Your task to perform on an android device: Go to network settings Image 0: 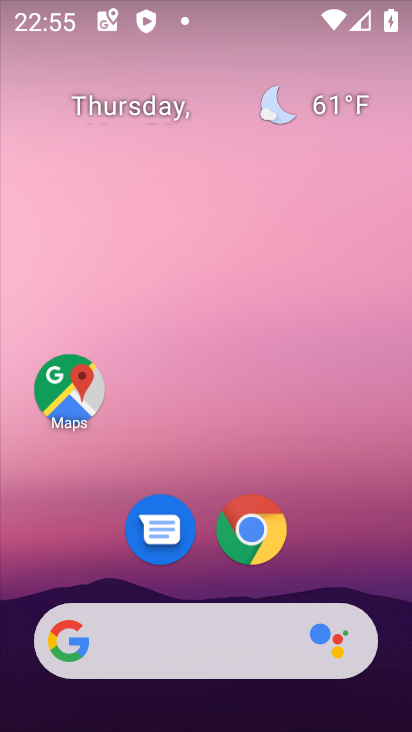
Step 0: drag from (361, 543) to (322, 155)
Your task to perform on an android device: Go to network settings Image 1: 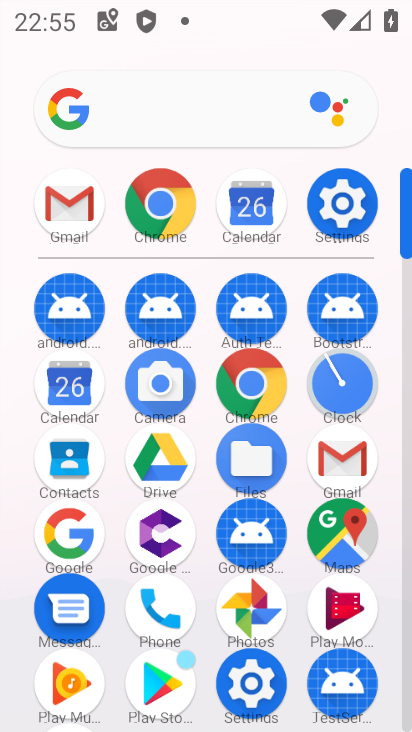
Step 1: click (339, 233)
Your task to perform on an android device: Go to network settings Image 2: 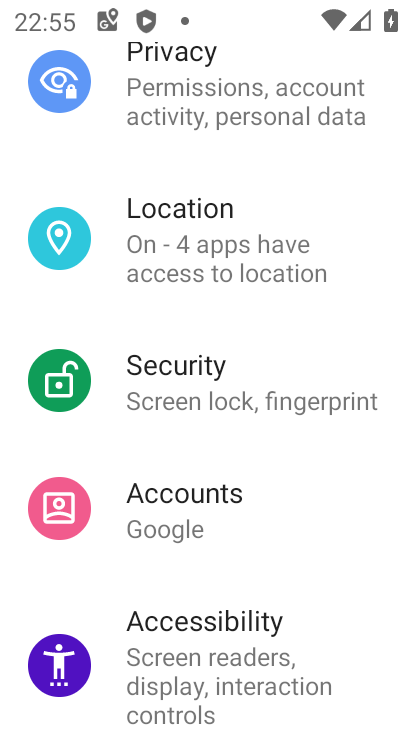
Step 2: task complete